Your task to perform on an android device: Open accessibility settings Image 0: 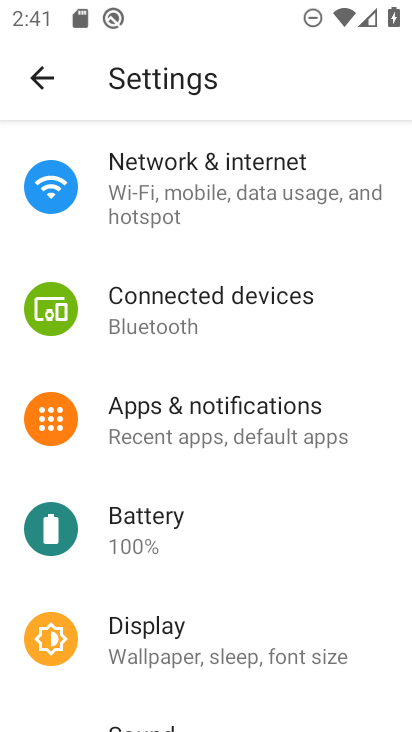
Step 0: drag from (226, 585) to (221, 236)
Your task to perform on an android device: Open accessibility settings Image 1: 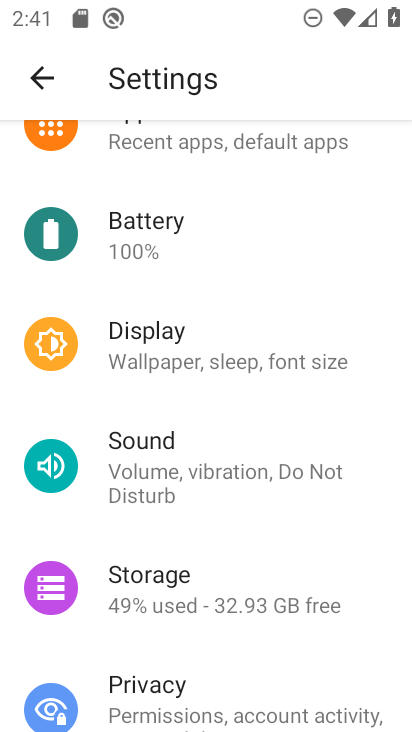
Step 1: drag from (228, 635) to (243, 265)
Your task to perform on an android device: Open accessibility settings Image 2: 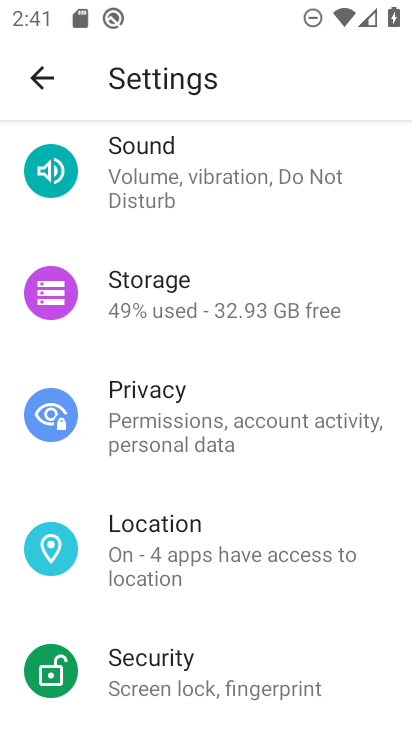
Step 2: drag from (237, 653) to (262, 295)
Your task to perform on an android device: Open accessibility settings Image 3: 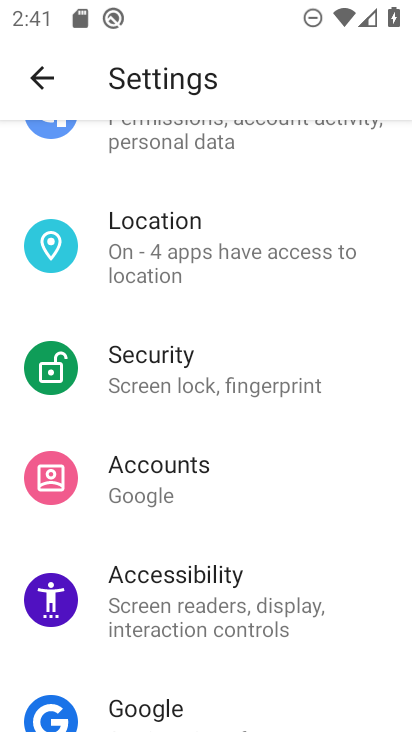
Step 3: click (223, 593)
Your task to perform on an android device: Open accessibility settings Image 4: 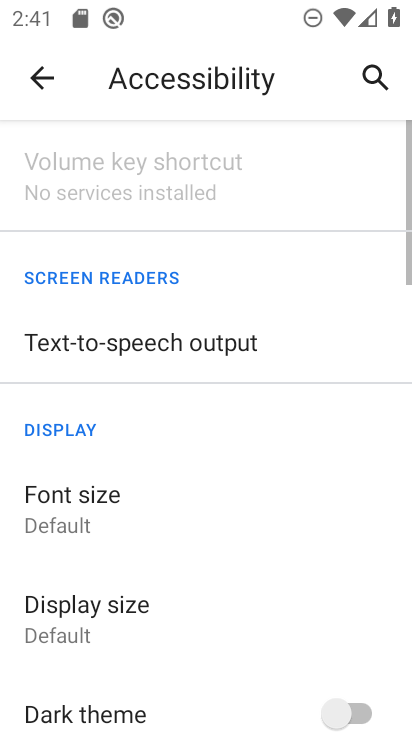
Step 4: task complete